Your task to perform on an android device: change notifications settings Image 0: 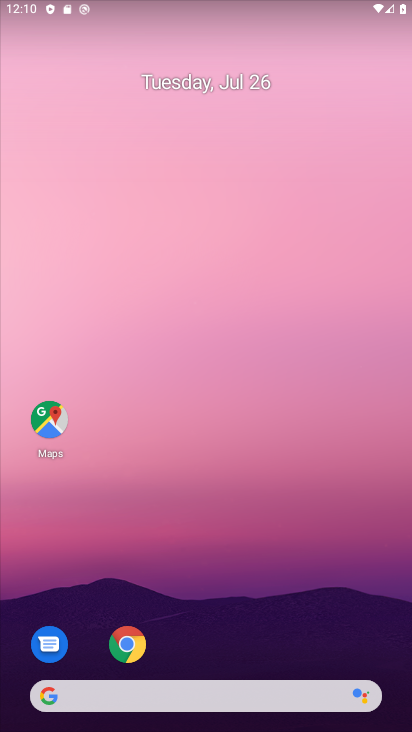
Step 0: drag from (228, 643) to (139, 100)
Your task to perform on an android device: change notifications settings Image 1: 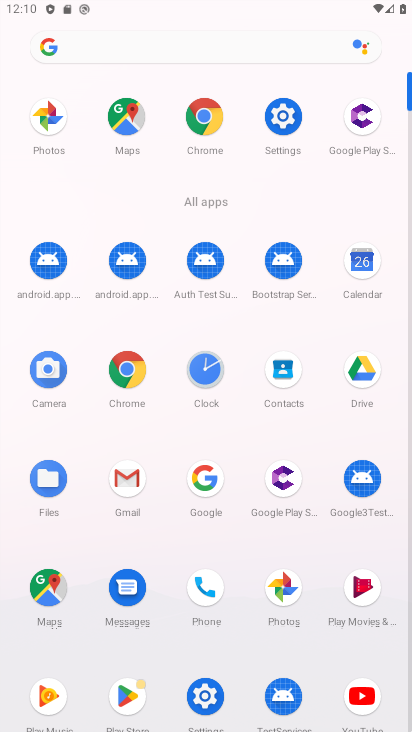
Step 1: click (292, 127)
Your task to perform on an android device: change notifications settings Image 2: 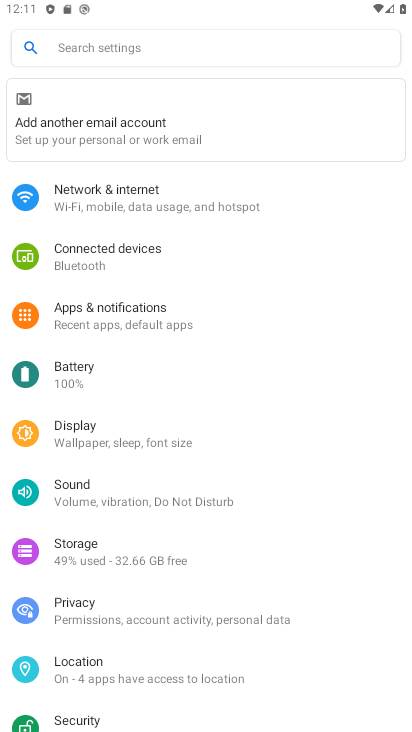
Step 2: click (259, 331)
Your task to perform on an android device: change notifications settings Image 3: 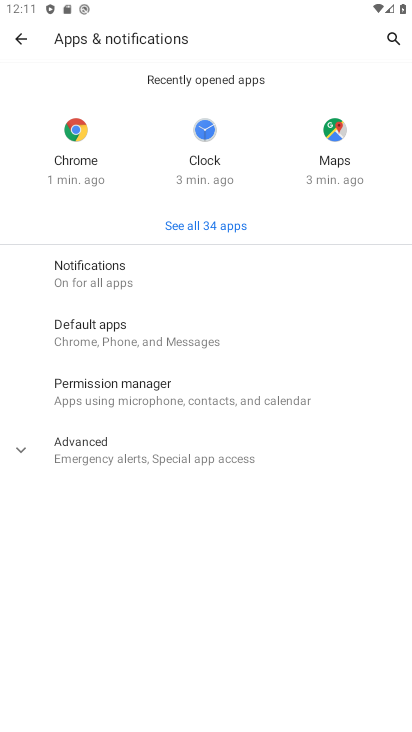
Step 3: click (148, 283)
Your task to perform on an android device: change notifications settings Image 4: 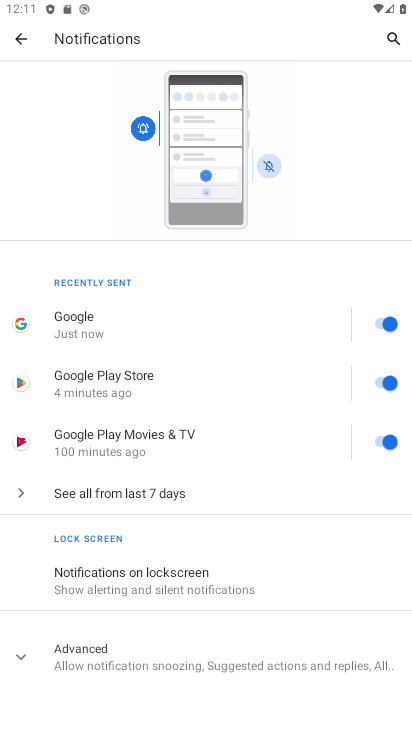
Step 4: click (292, 666)
Your task to perform on an android device: change notifications settings Image 5: 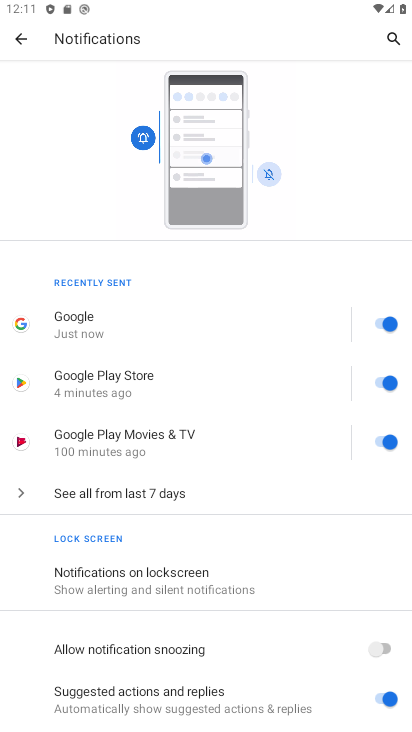
Step 5: drag from (264, 623) to (232, 198)
Your task to perform on an android device: change notifications settings Image 6: 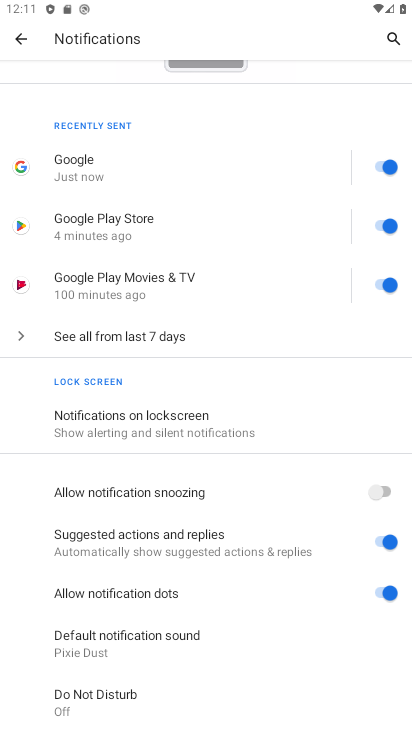
Step 6: click (379, 499)
Your task to perform on an android device: change notifications settings Image 7: 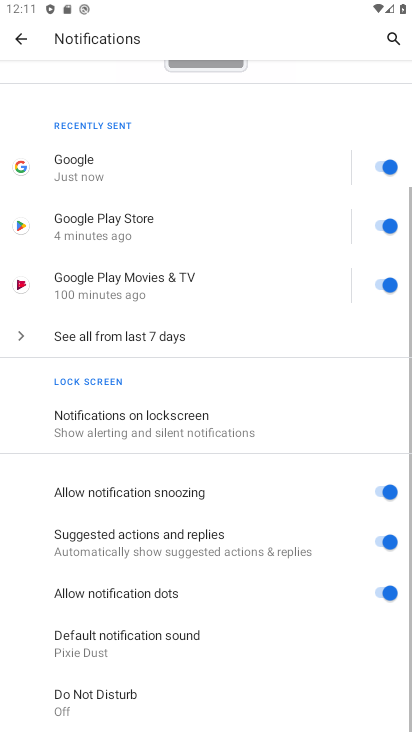
Step 7: click (381, 543)
Your task to perform on an android device: change notifications settings Image 8: 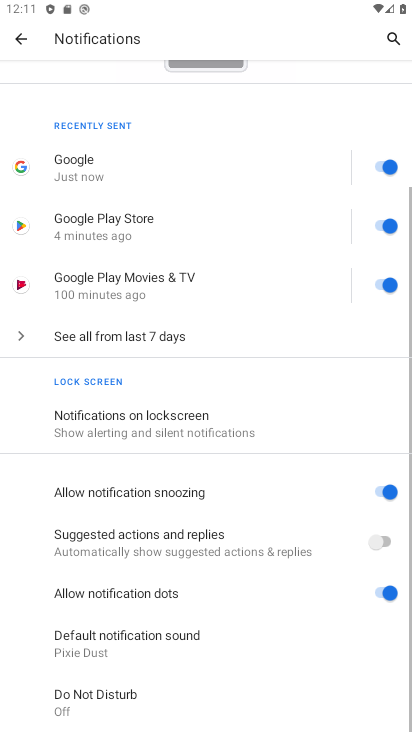
Step 8: click (384, 594)
Your task to perform on an android device: change notifications settings Image 9: 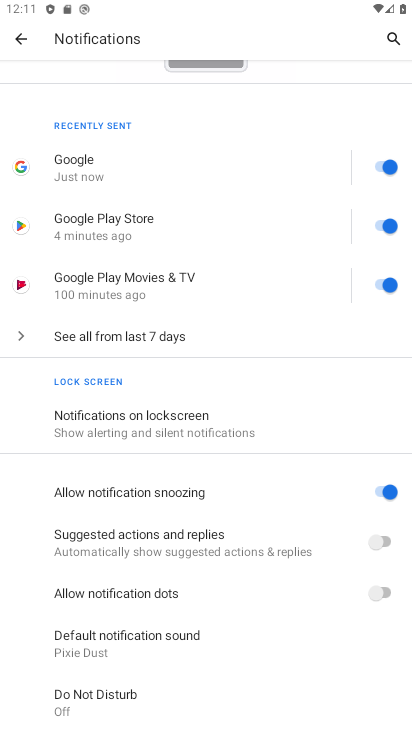
Step 9: task complete